Your task to perform on an android device: set the timer Image 0: 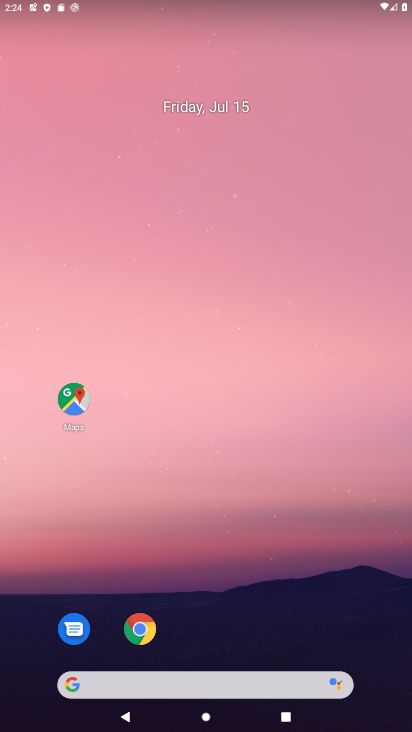
Step 0: drag from (216, 637) to (267, 70)
Your task to perform on an android device: set the timer Image 1: 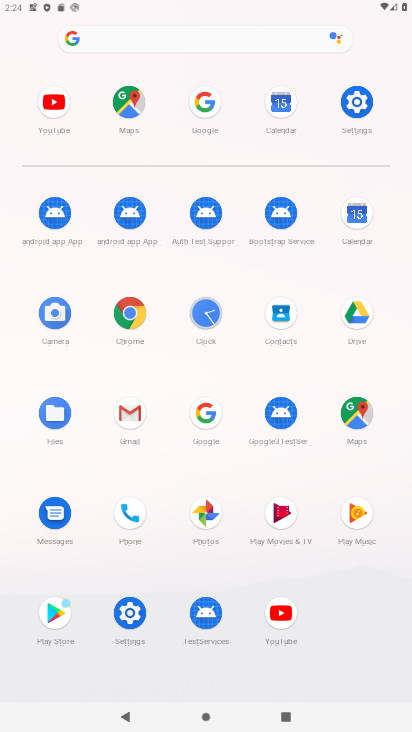
Step 1: click (209, 318)
Your task to perform on an android device: set the timer Image 2: 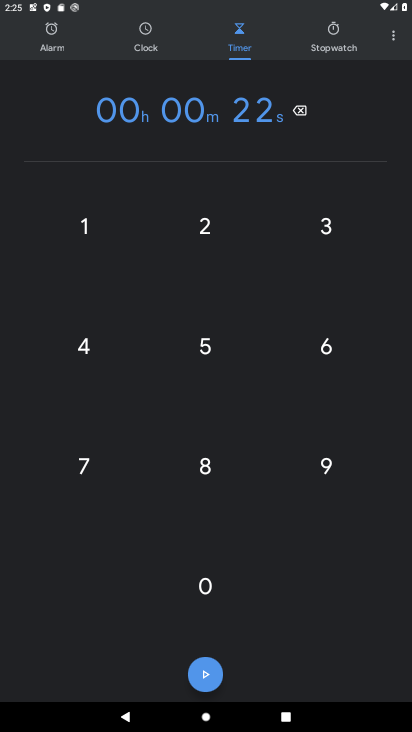
Step 2: click (218, 230)
Your task to perform on an android device: set the timer Image 3: 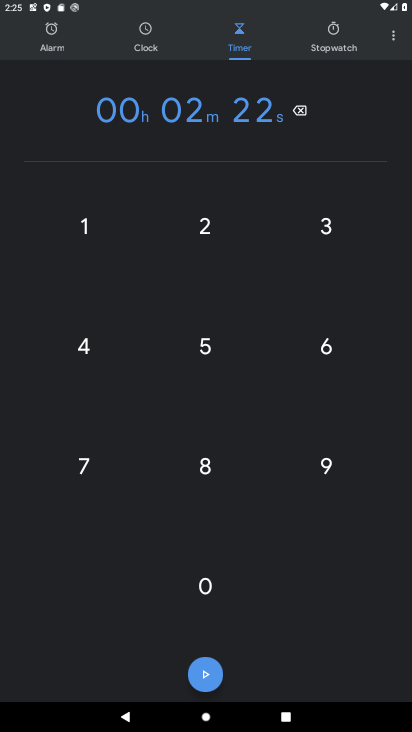
Step 3: task complete